Your task to perform on an android device: Go to Wikipedia Image 0: 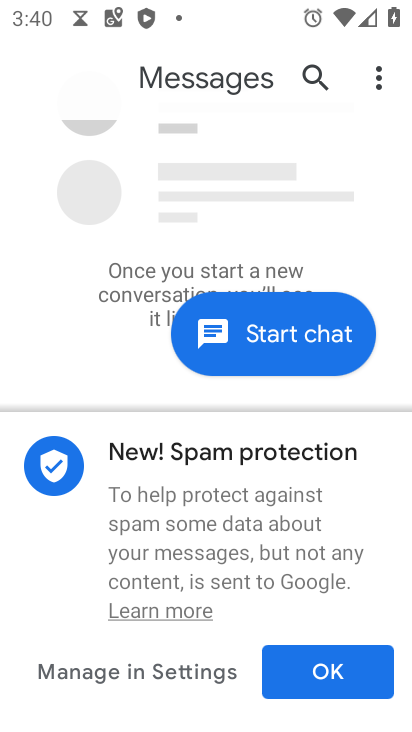
Step 0: press back button
Your task to perform on an android device: Go to Wikipedia Image 1: 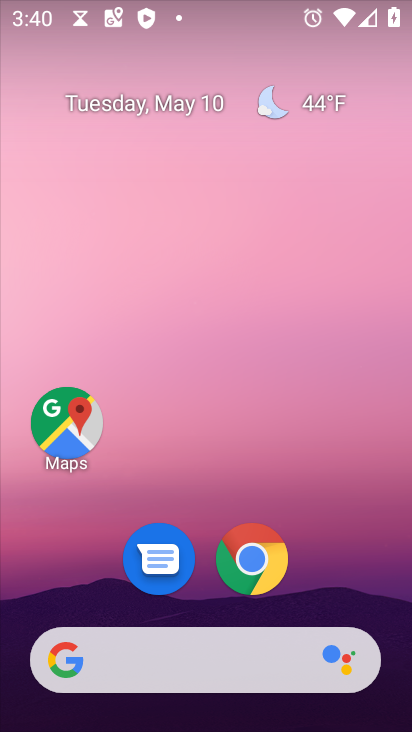
Step 1: click (274, 577)
Your task to perform on an android device: Go to Wikipedia Image 2: 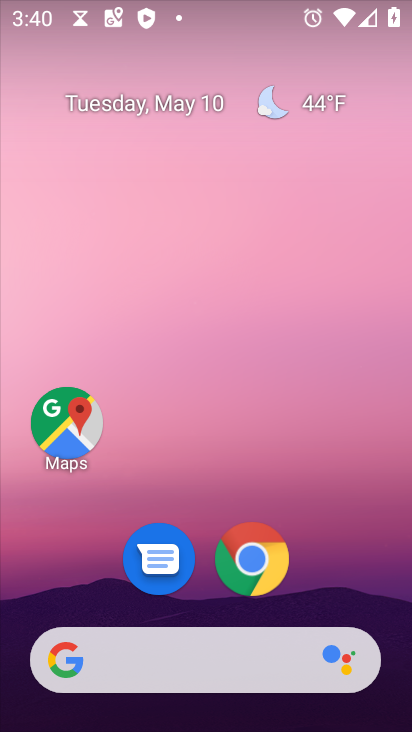
Step 2: click (268, 570)
Your task to perform on an android device: Go to Wikipedia Image 3: 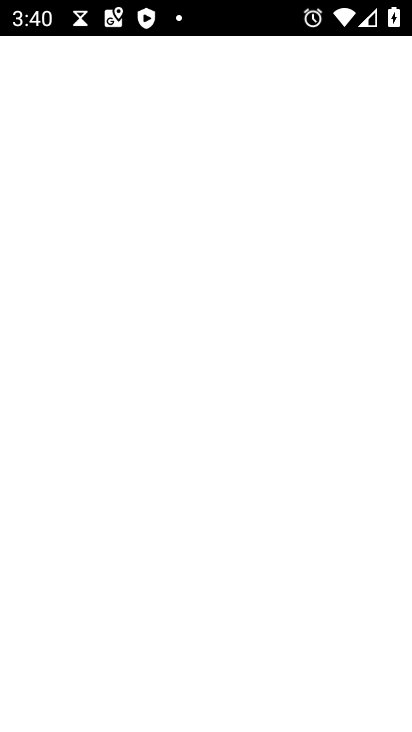
Step 3: click (268, 570)
Your task to perform on an android device: Go to Wikipedia Image 4: 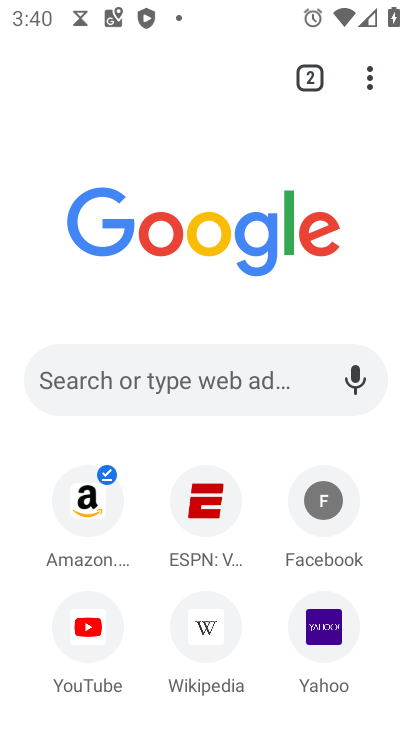
Step 4: click (210, 630)
Your task to perform on an android device: Go to Wikipedia Image 5: 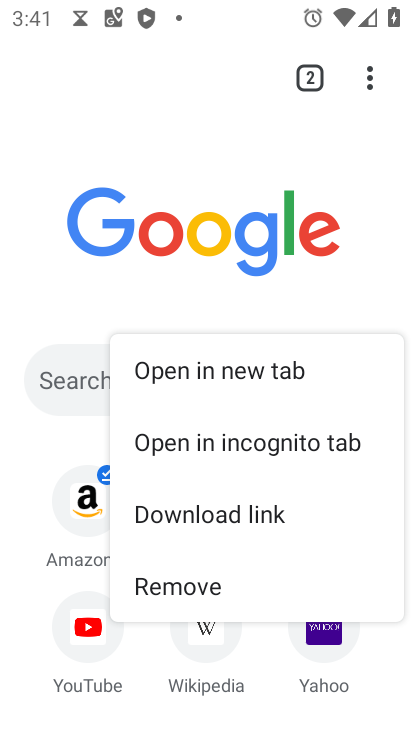
Step 5: click (224, 368)
Your task to perform on an android device: Go to Wikipedia Image 6: 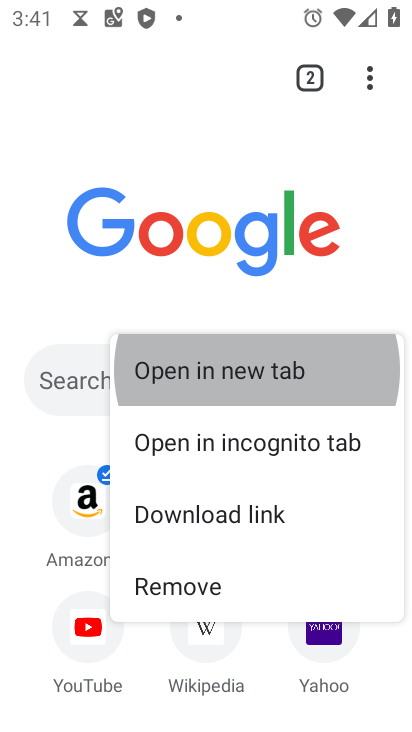
Step 6: click (217, 352)
Your task to perform on an android device: Go to Wikipedia Image 7: 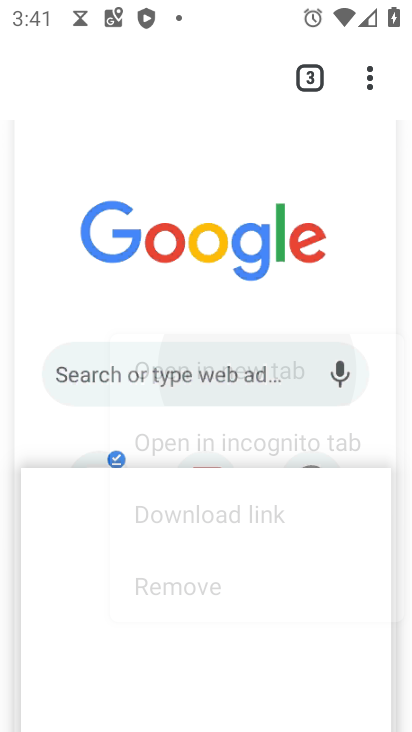
Step 7: click (215, 361)
Your task to perform on an android device: Go to Wikipedia Image 8: 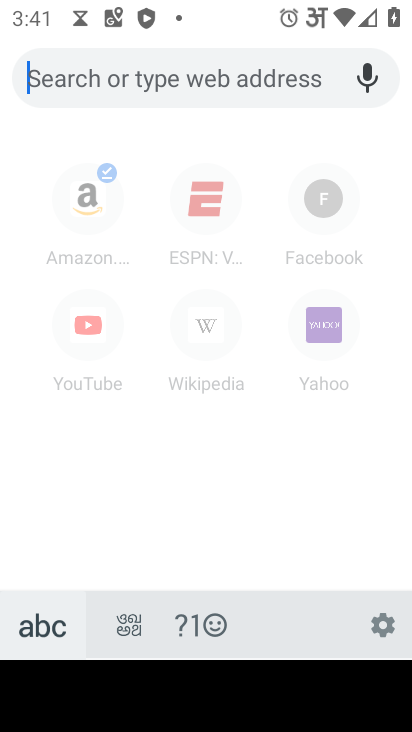
Step 8: click (208, 335)
Your task to perform on an android device: Go to Wikipedia Image 9: 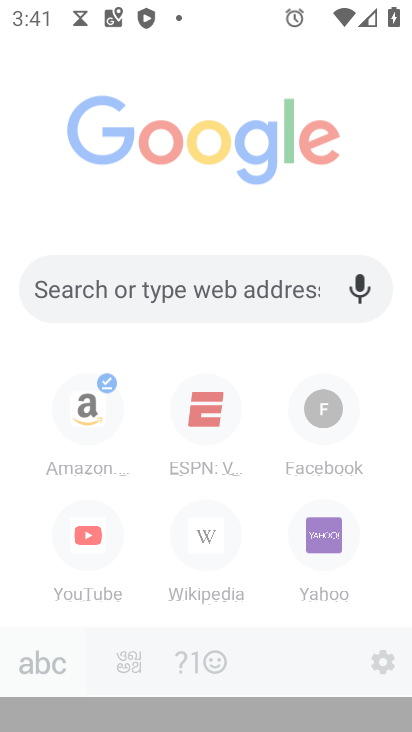
Step 9: click (208, 332)
Your task to perform on an android device: Go to Wikipedia Image 10: 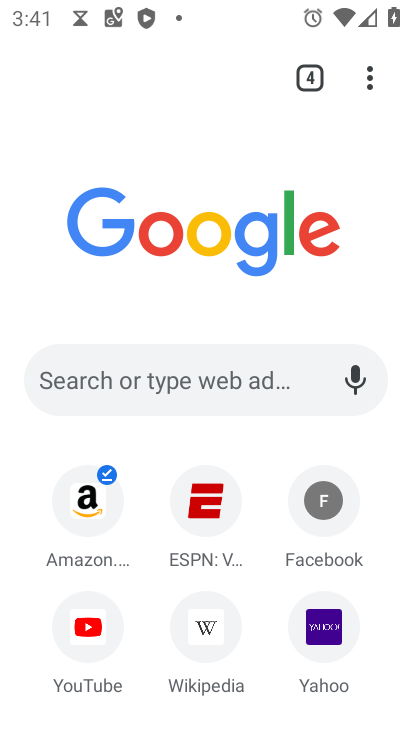
Step 10: click (208, 332)
Your task to perform on an android device: Go to Wikipedia Image 11: 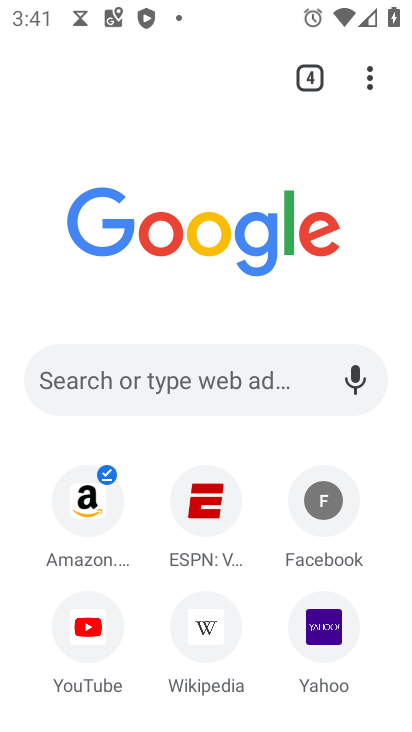
Step 11: click (208, 332)
Your task to perform on an android device: Go to Wikipedia Image 12: 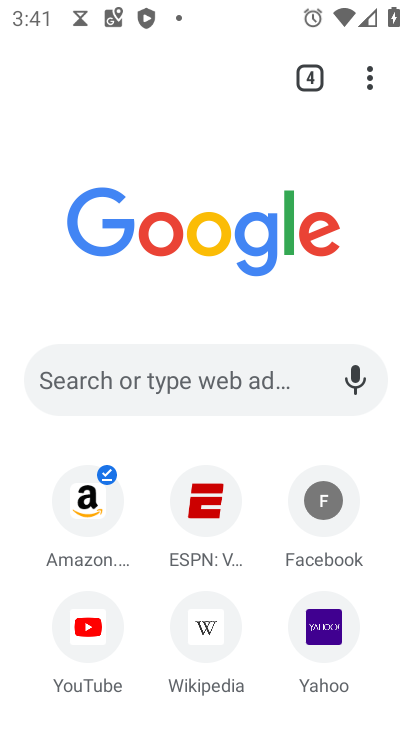
Step 12: click (212, 624)
Your task to perform on an android device: Go to Wikipedia Image 13: 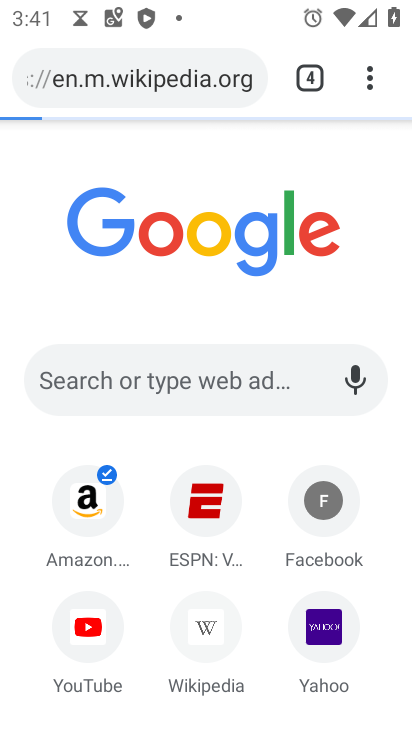
Step 13: click (212, 624)
Your task to perform on an android device: Go to Wikipedia Image 14: 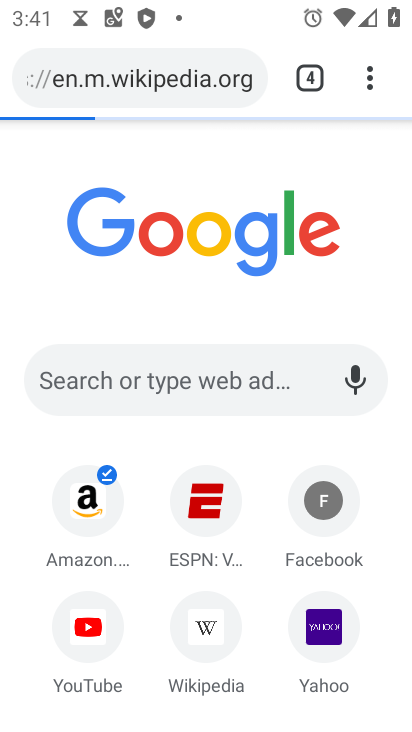
Step 14: click (212, 624)
Your task to perform on an android device: Go to Wikipedia Image 15: 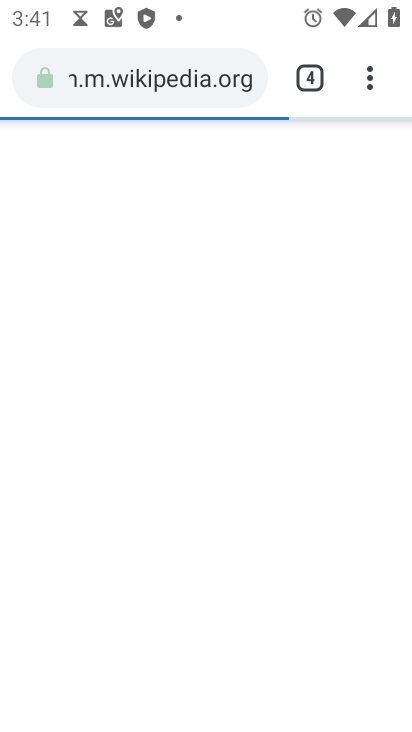
Step 15: click (212, 624)
Your task to perform on an android device: Go to Wikipedia Image 16: 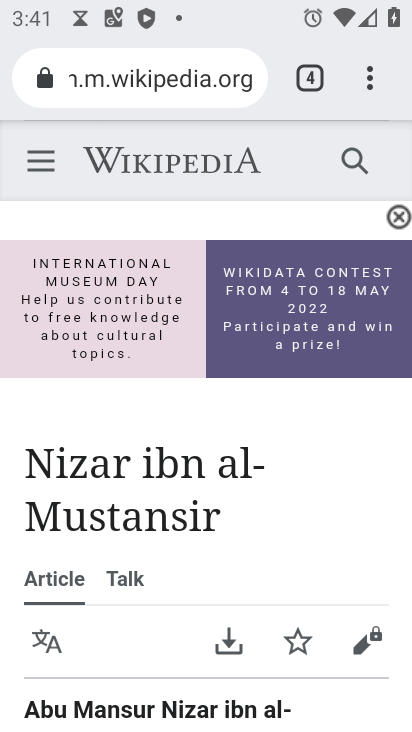
Step 16: task complete